Your task to perform on an android device: Open Reddit.com Image 0: 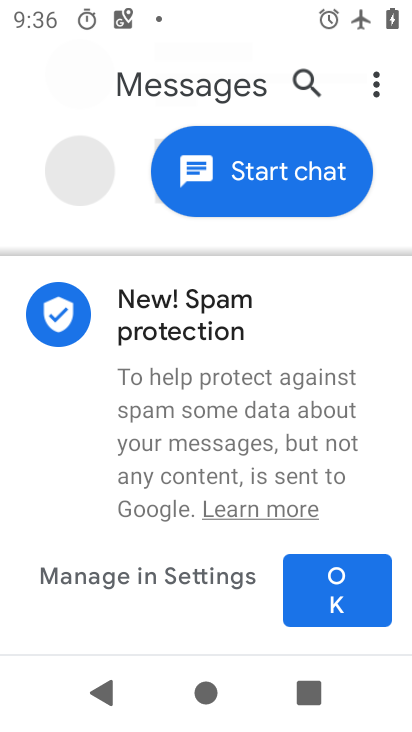
Step 0: press home button
Your task to perform on an android device: Open Reddit.com Image 1: 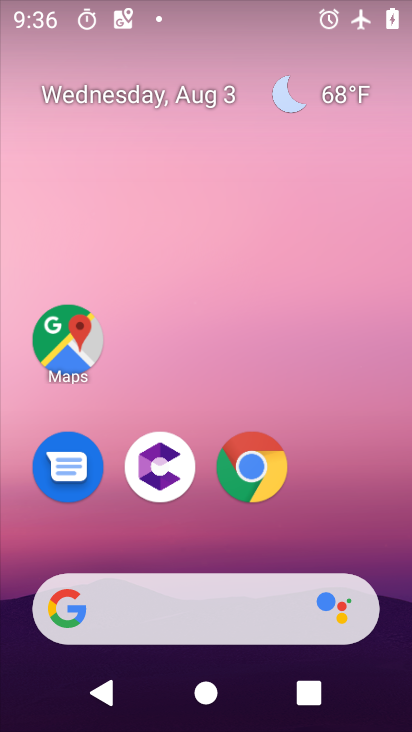
Step 1: drag from (354, 495) to (333, 47)
Your task to perform on an android device: Open Reddit.com Image 2: 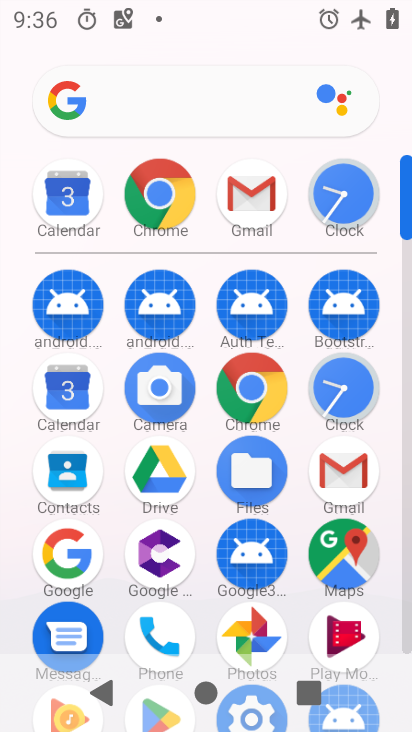
Step 2: click (252, 380)
Your task to perform on an android device: Open Reddit.com Image 3: 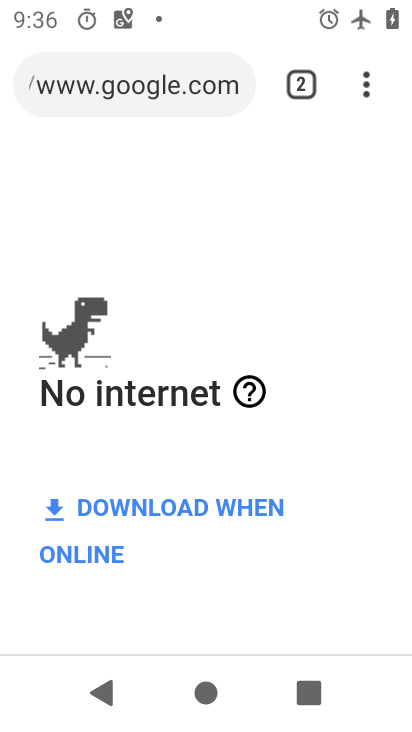
Step 3: click (196, 80)
Your task to perform on an android device: Open Reddit.com Image 4: 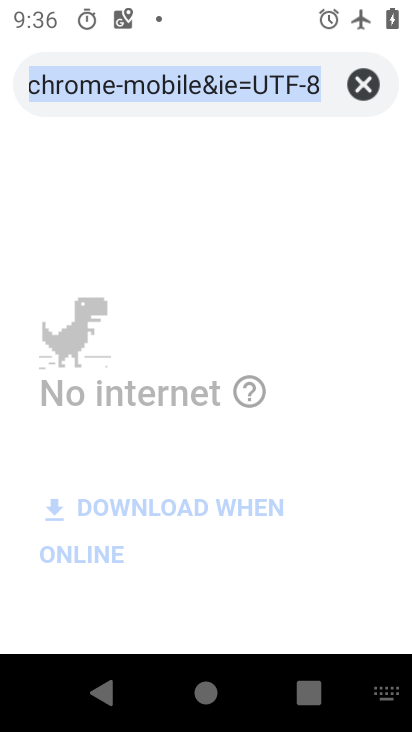
Step 4: type "reddit.com"
Your task to perform on an android device: Open Reddit.com Image 5: 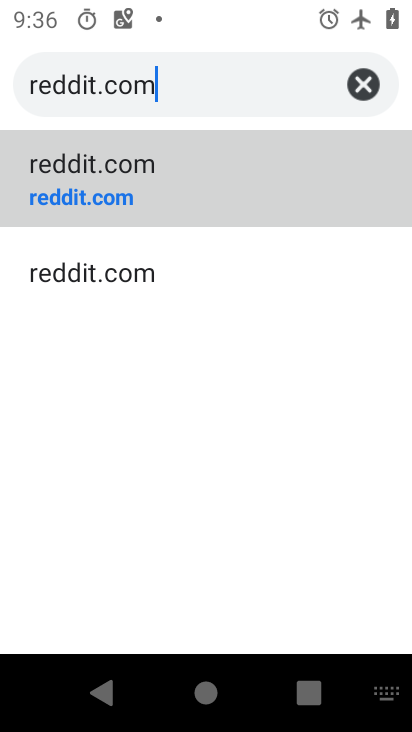
Step 5: click (133, 196)
Your task to perform on an android device: Open Reddit.com Image 6: 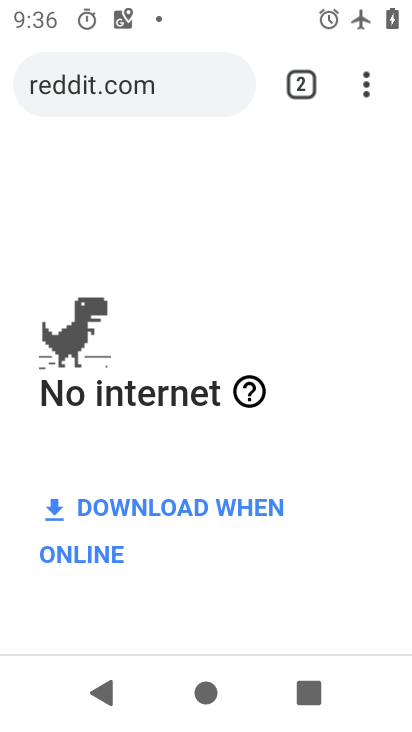
Step 6: task complete